Your task to perform on an android device: Go to Maps Image 0: 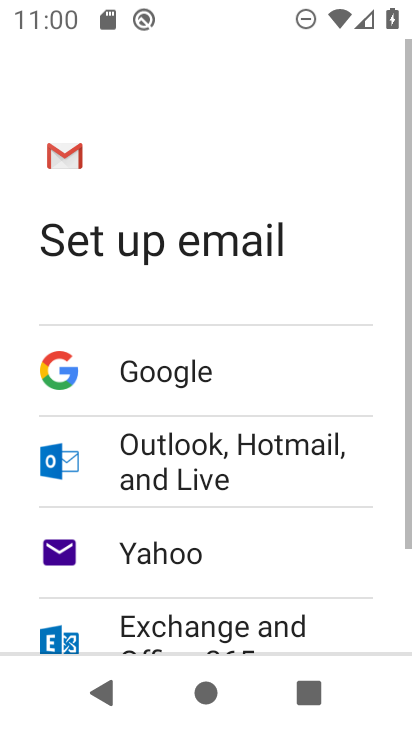
Step 0: press back button
Your task to perform on an android device: Go to Maps Image 1: 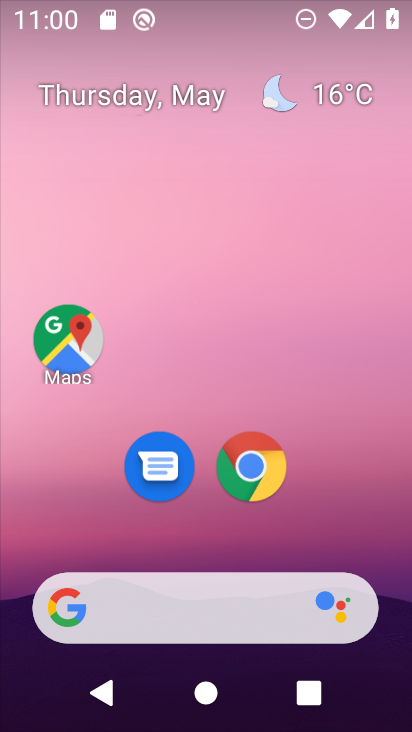
Step 1: click (75, 338)
Your task to perform on an android device: Go to Maps Image 2: 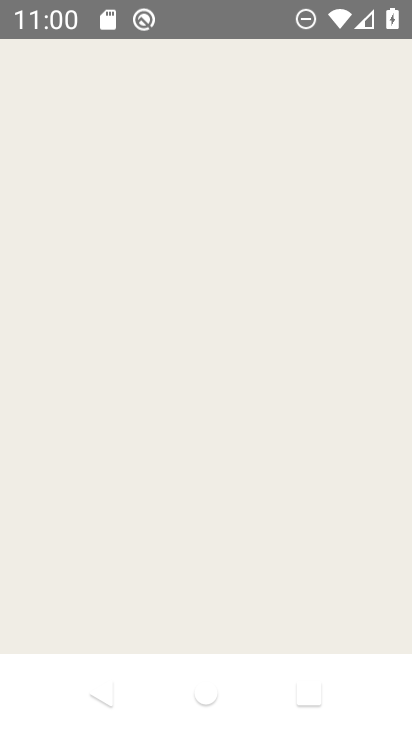
Step 2: task complete